Your task to perform on an android device: Open Google Chrome and open the bookmarks view Image 0: 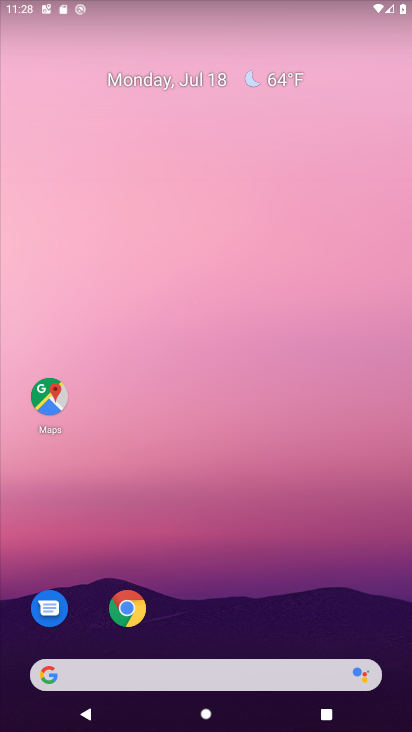
Step 0: drag from (226, 491) to (290, 3)
Your task to perform on an android device: Open Google Chrome and open the bookmarks view Image 1: 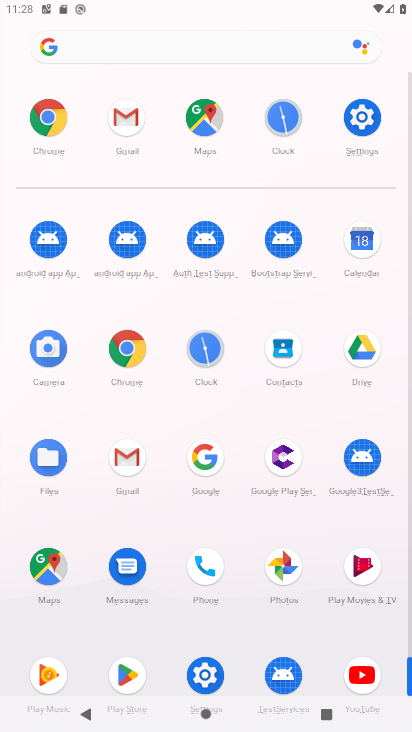
Step 1: click (62, 131)
Your task to perform on an android device: Open Google Chrome and open the bookmarks view Image 2: 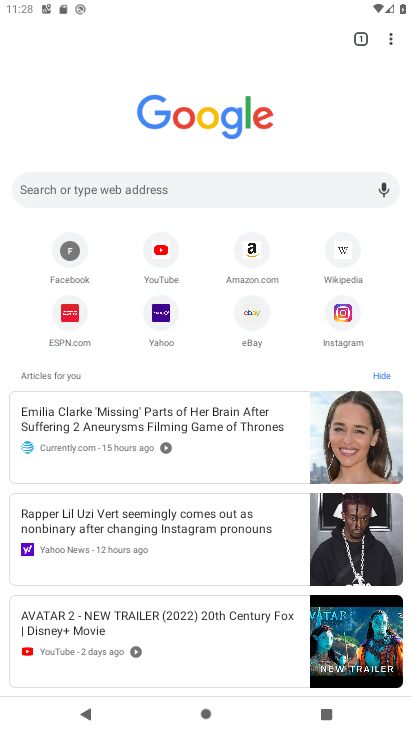
Step 2: click (391, 40)
Your task to perform on an android device: Open Google Chrome and open the bookmarks view Image 3: 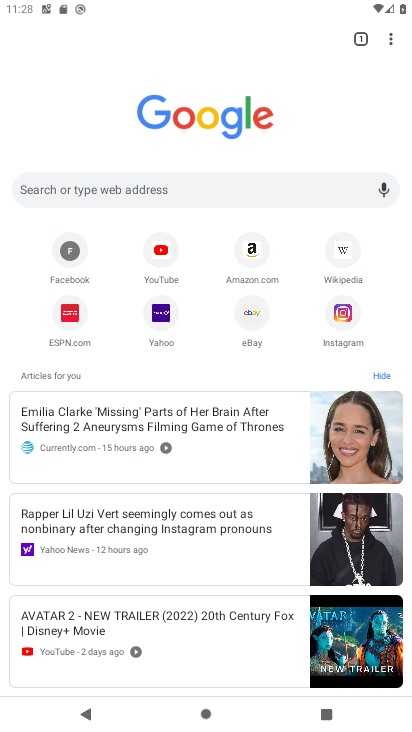
Step 3: click (393, 41)
Your task to perform on an android device: Open Google Chrome and open the bookmarks view Image 4: 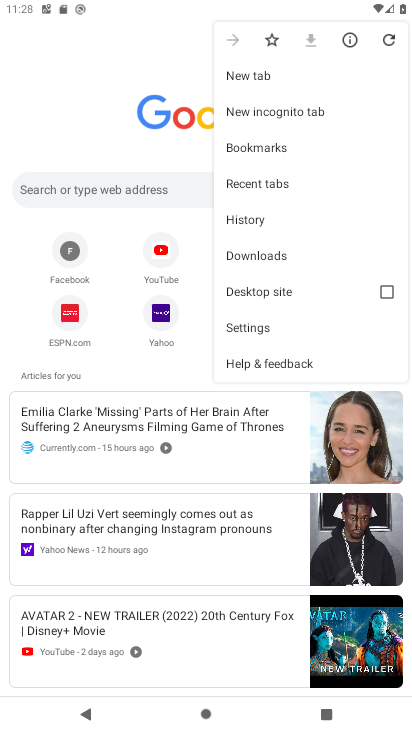
Step 4: click (287, 151)
Your task to perform on an android device: Open Google Chrome and open the bookmarks view Image 5: 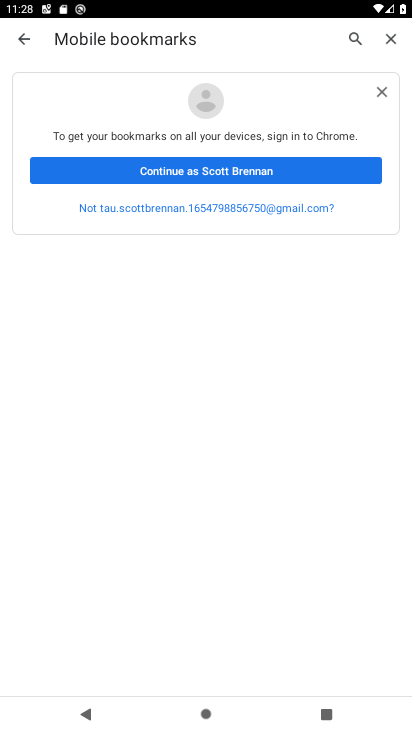
Step 5: click (382, 89)
Your task to perform on an android device: Open Google Chrome and open the bookmarks view Image 6: 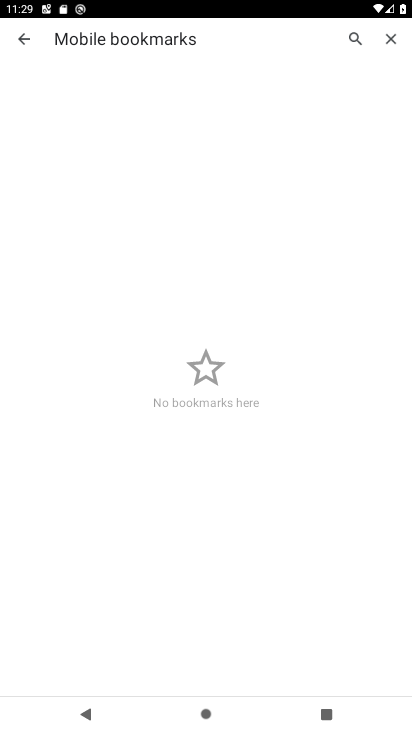
Step 6: task complete